Your task to perform on an android device: turn notification dots on Image 0: 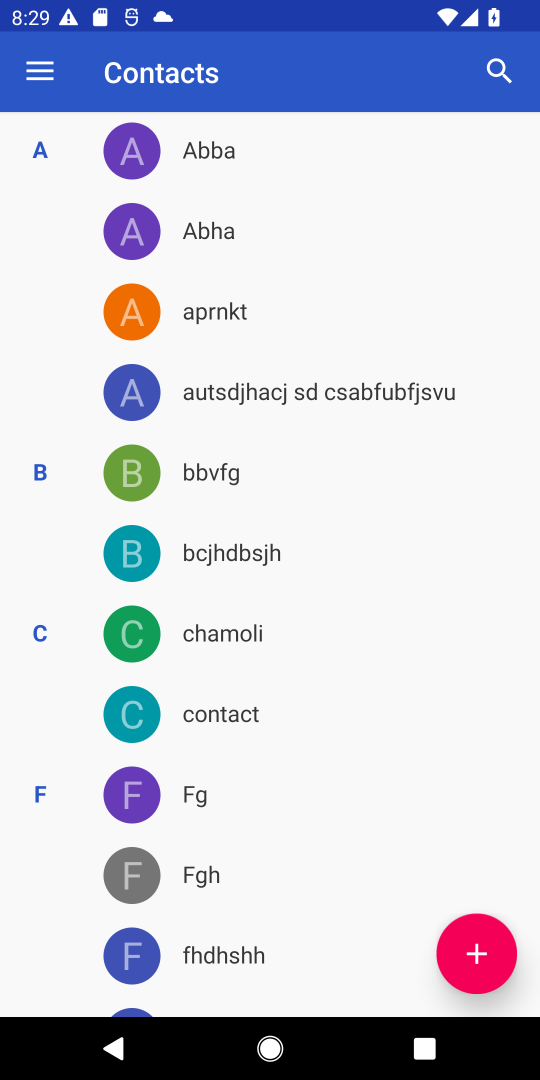
Step 0: press home button
Your task to perform on an android device: turn notification dots on Image 1: 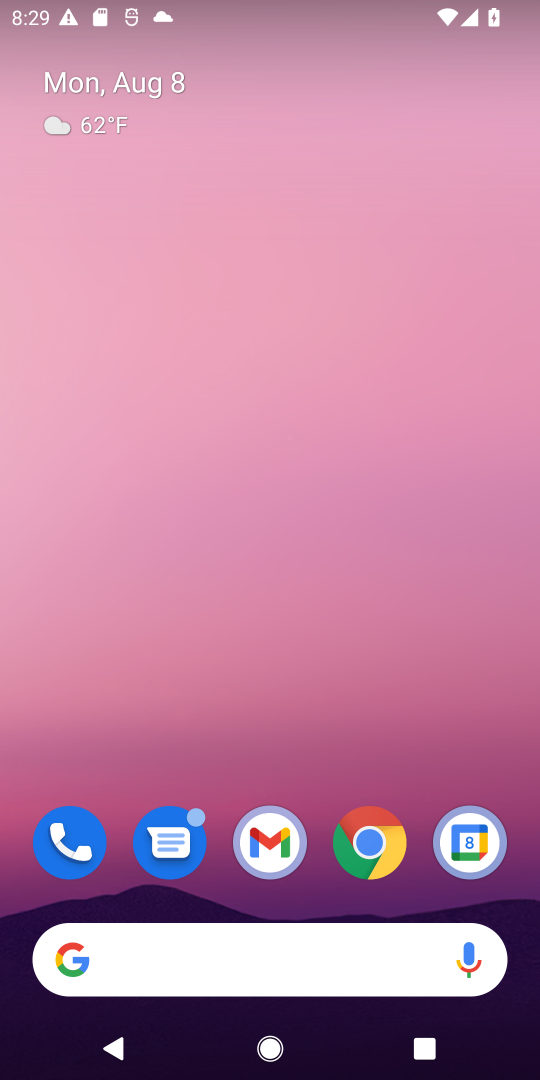
Step 1: drag from (316, 755) to (250, 0)
Your task to perform on an android device: turn notification dots on Image 2: 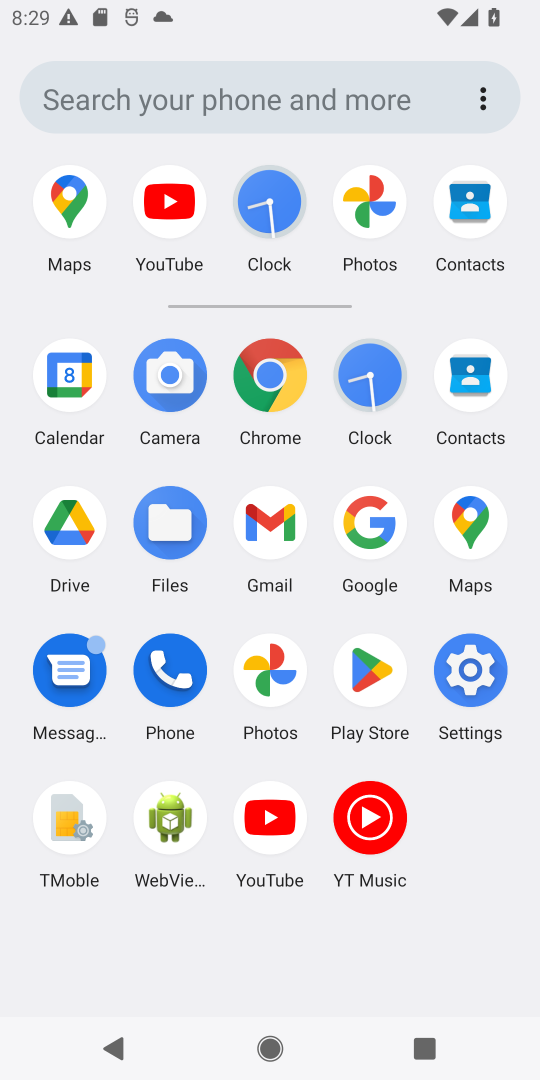
Step 2: click (466, 672)
Your task to perform on an android device: turn notification dots on Image 3: 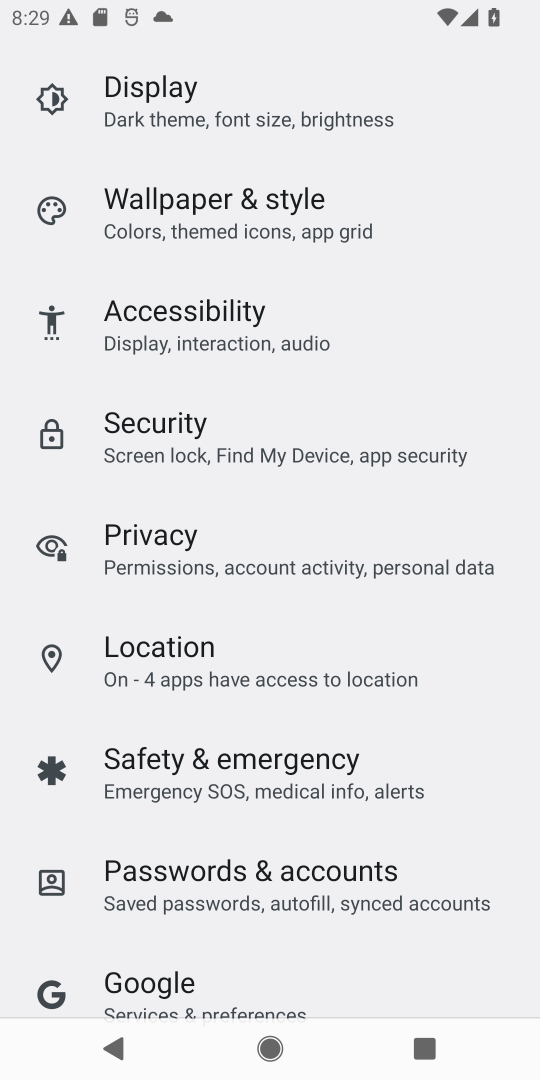
Step 3: drag from (287, 152) to (298, 891)
Your task to perform on an android device: turn notification dots on Image 4: 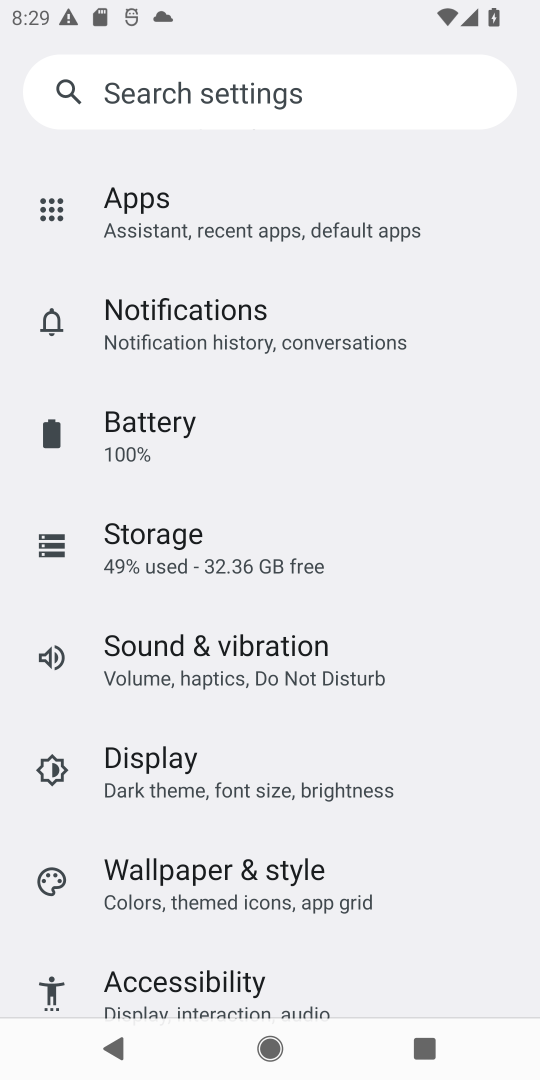
Step 4: click (315, 336)
Your task to perform on an android device: turn notification dots on Image 5: 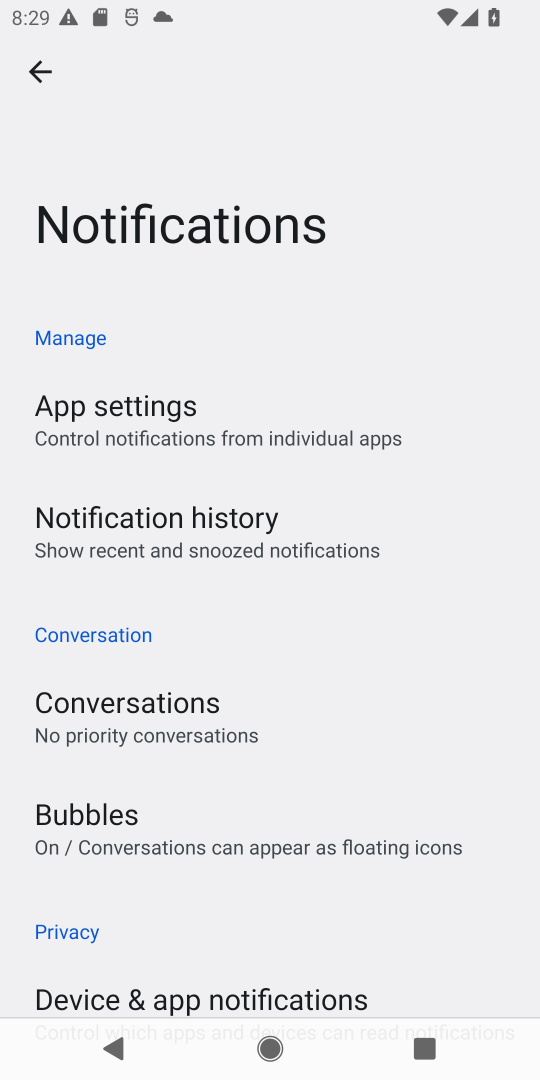
Step 5: task complete